Your task to perform on an android device: What's the weather going to be this weekend? Image 0: 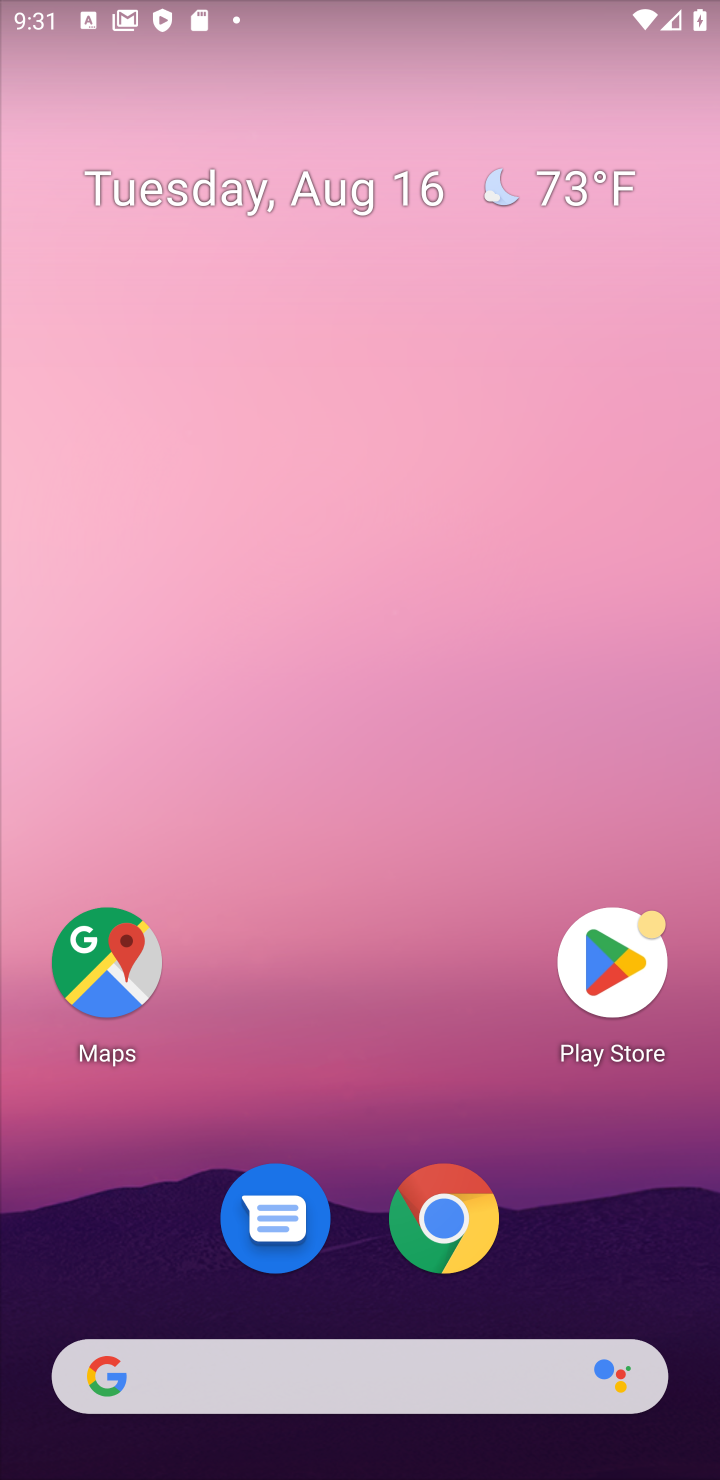
Step 0: click (574, 208)
Your task to perform on an android device: What's the weather going to be this weekend? Image 1: 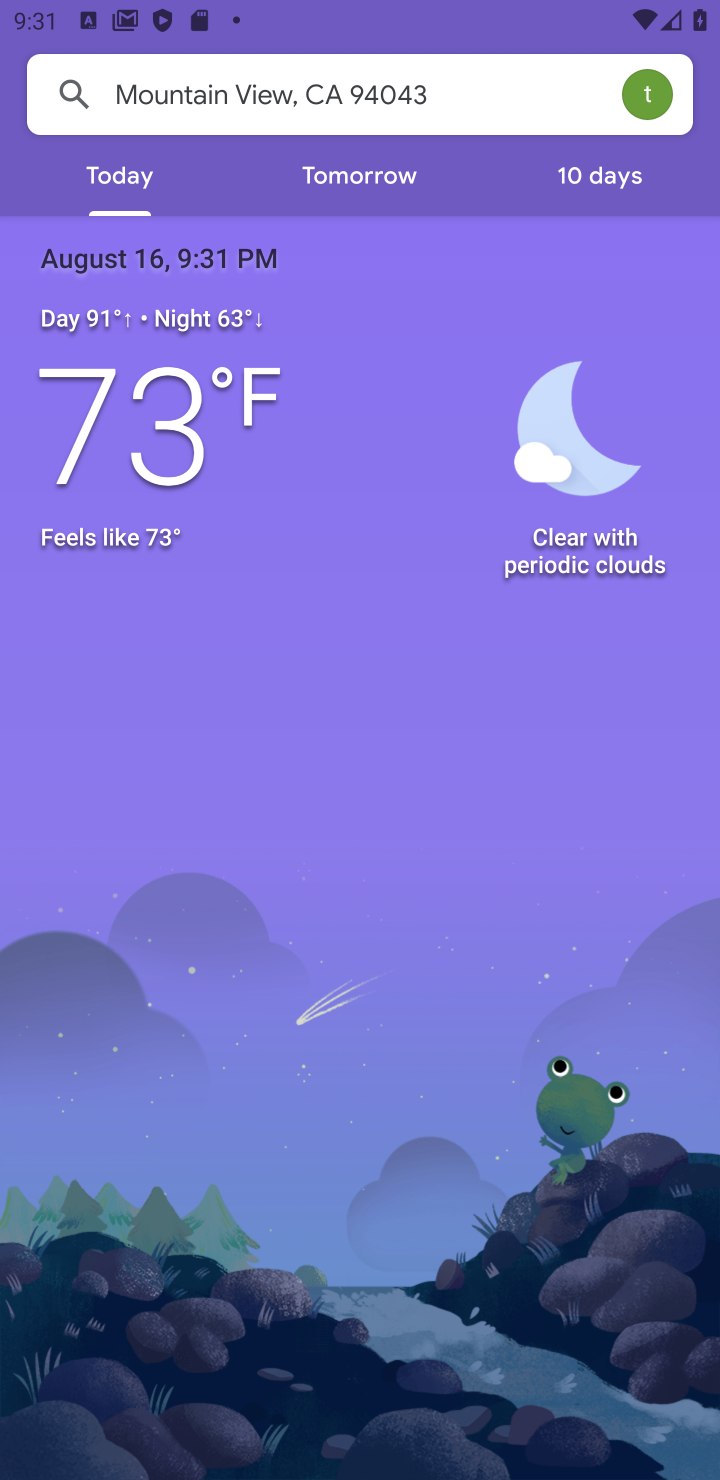
Step 1: click (601, 180)
Your task to perform on an android device: What's the weather going to be this weekend? Image 2: 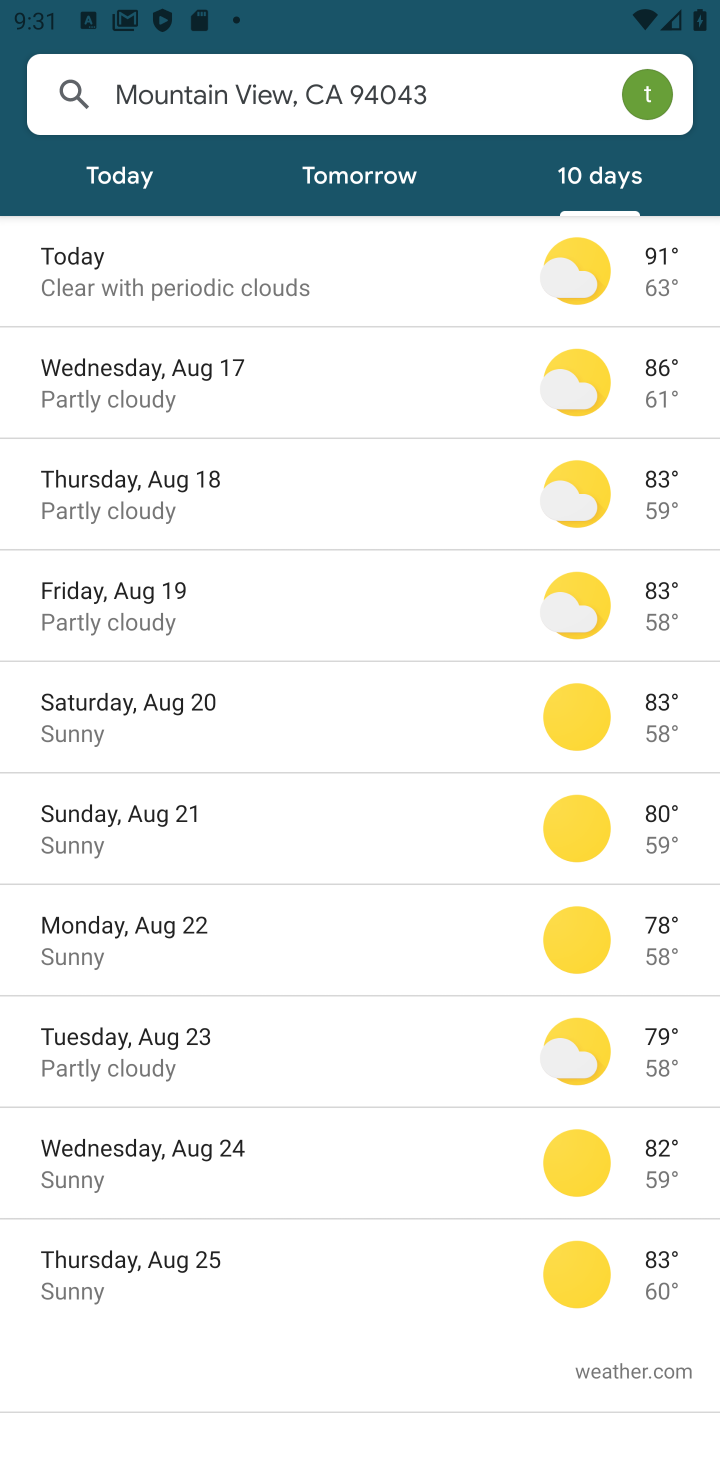
Step 2: click (301, 719)
Your task to perform on an android device: What's the weather going to be this weekend? Image 3: 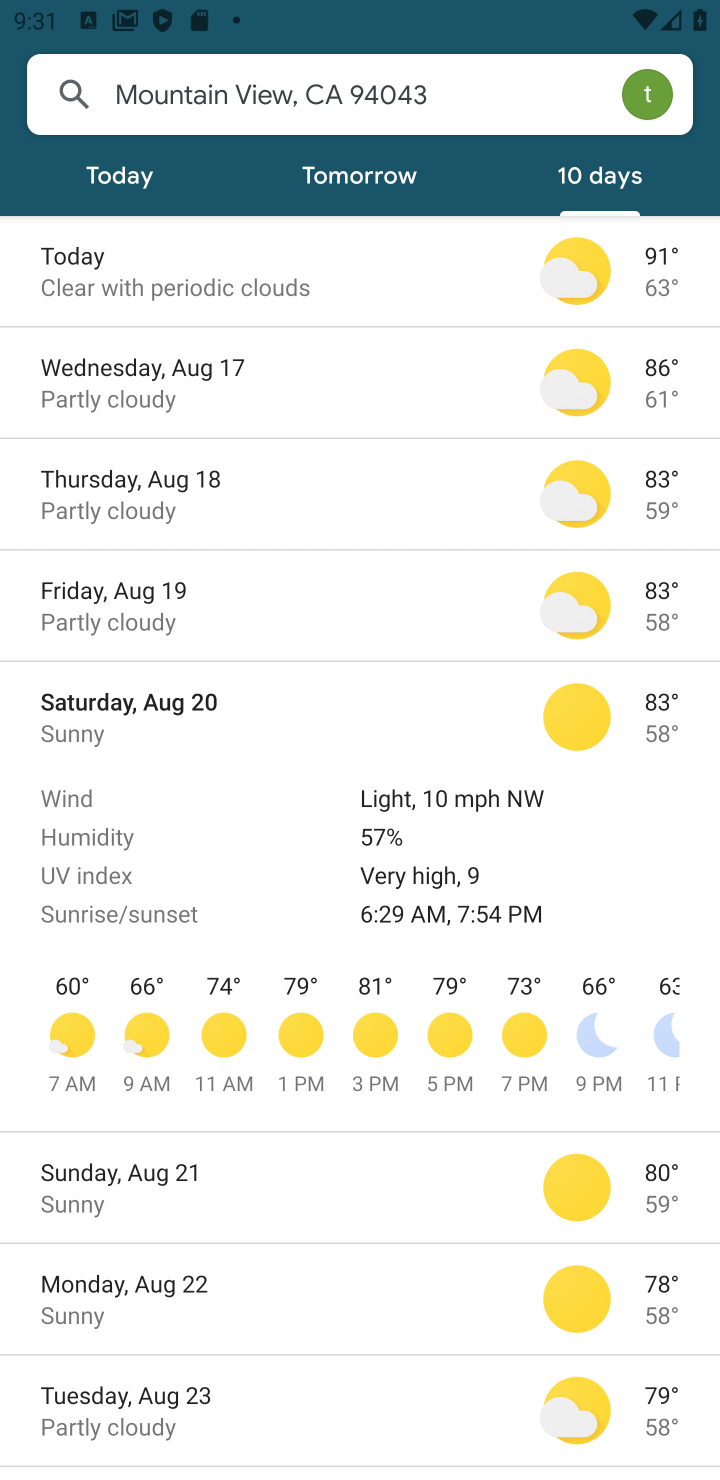
Step 3: task complete